Your task to perform on an android device: Open network settings Image 0: 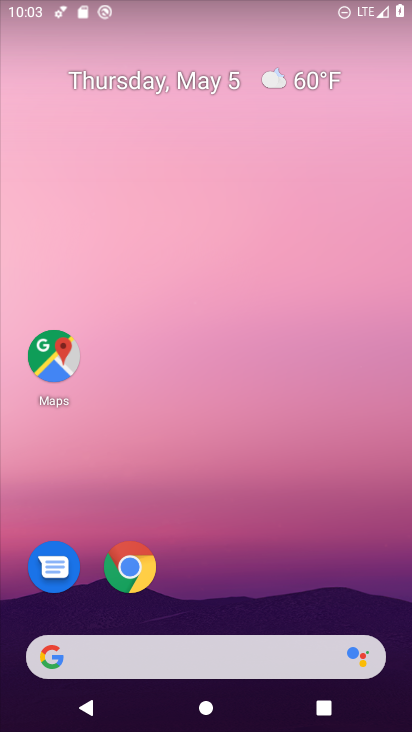
Step 0: drag from (236, 730) to (231, 184)
Your task to perform on an android device: Open network settings Image 1: 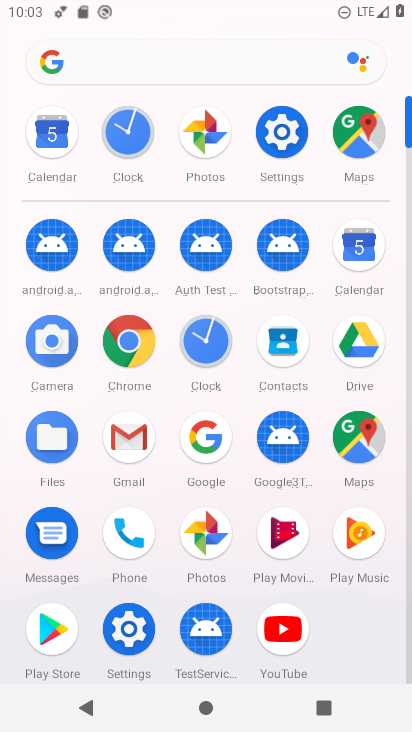
Step 1: click (282, 128)
Your task to perform on an android device: Open network settings Image 2: 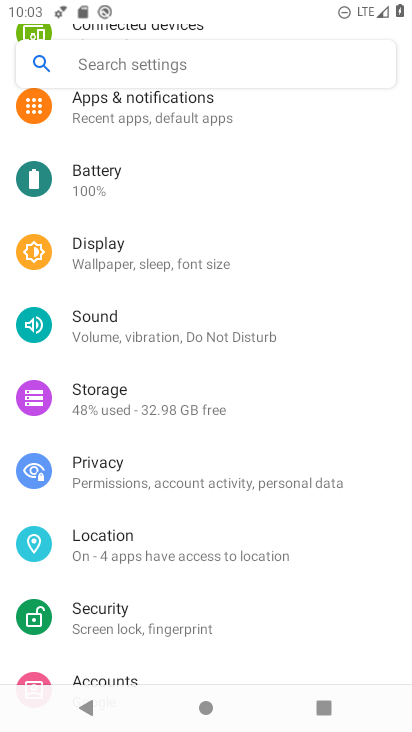
Step 2: drag from (186, 153) to (178, 448)
Your task to perform on an android device: Open network settings Image 3: 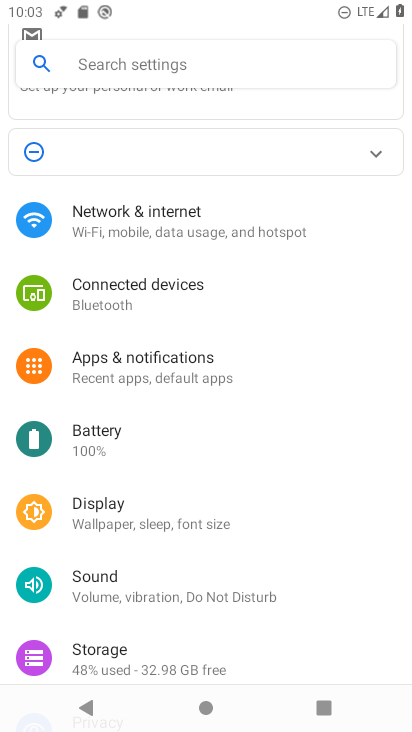
Step 3: click (124, 218)
Your task to perform on an android device: Open network settings Image 4: 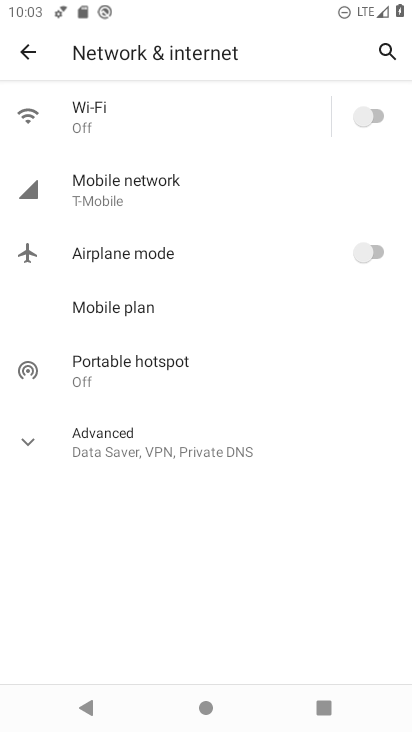
Step 4: click (111, 195)
Your task to perform on an android device: Open network settings Image 5: 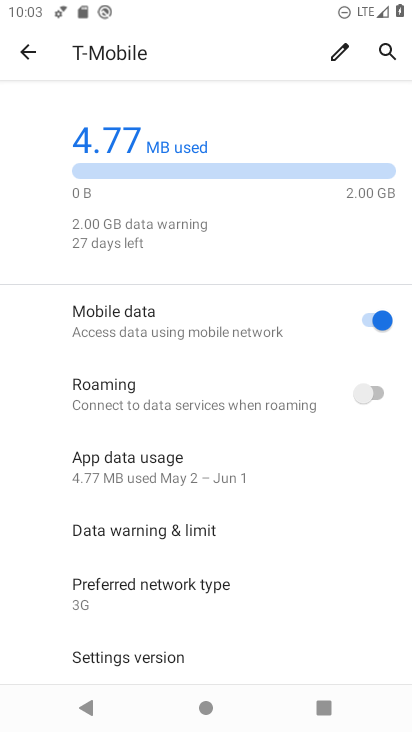
Step 5: task complete